Your task to perform on an android device: Search for Italian restaurants on Maps Image 0: 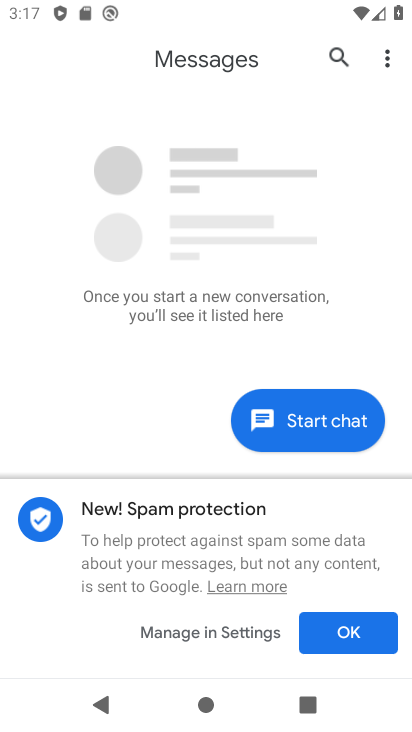
Step 0: press home button
Your task to perform on an android device: Search for Italian restaurants on Maps Image 1: 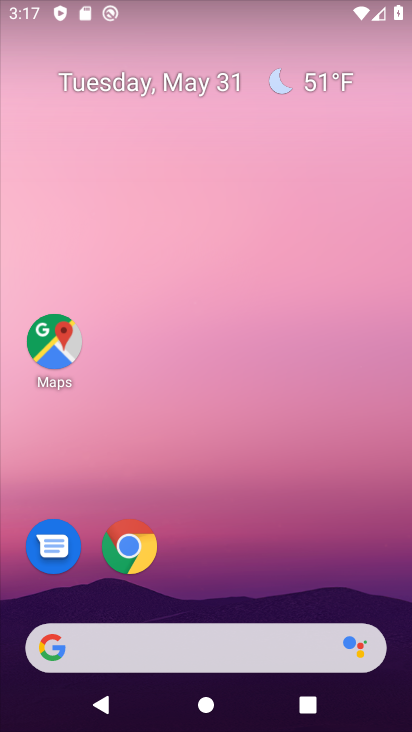
Step 1: drag from (225, 567) to (271, 236)
Your task to perform on an android device: Search for Italian restaurants on Maps Image 2: 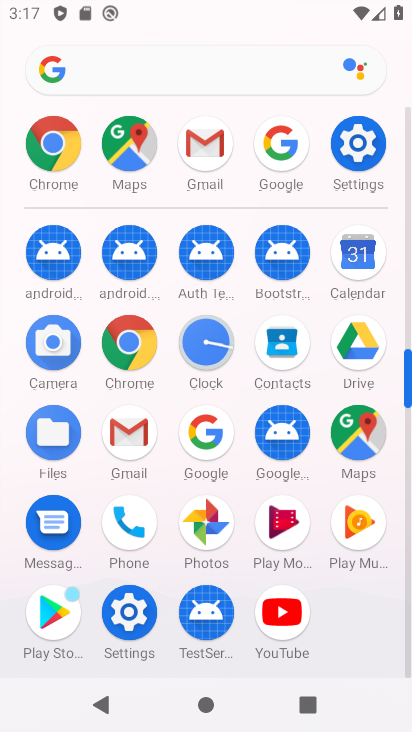
Step 2: click (143, 151)
Your task to perform on an android device: Search for Italian restaurants on Maps Image 3: 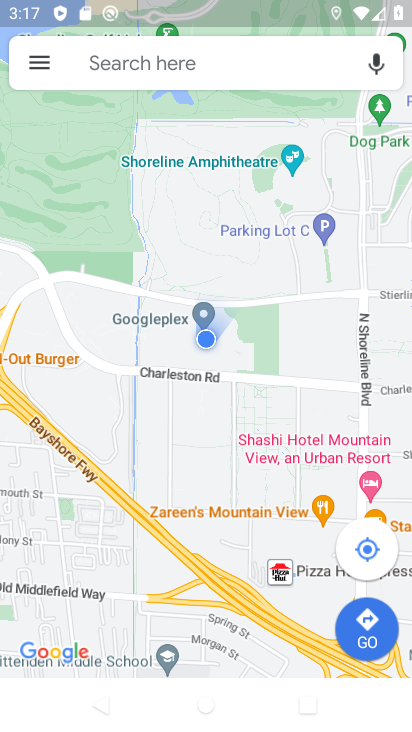
Step 3: click (181, 64)
Your task to perform on an android device: Search for Italian restaurants on Maps Image 4: 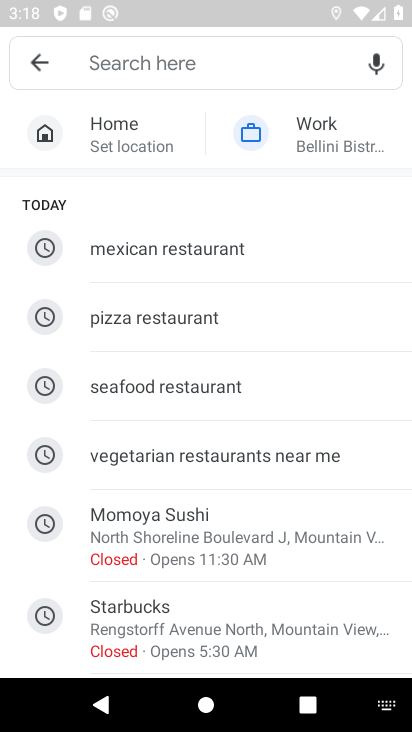
Step 4: drag from (200, 521) to (178, 196)
Your task to perform on an android device: Search for Italian restaurants on Maps Image 5: 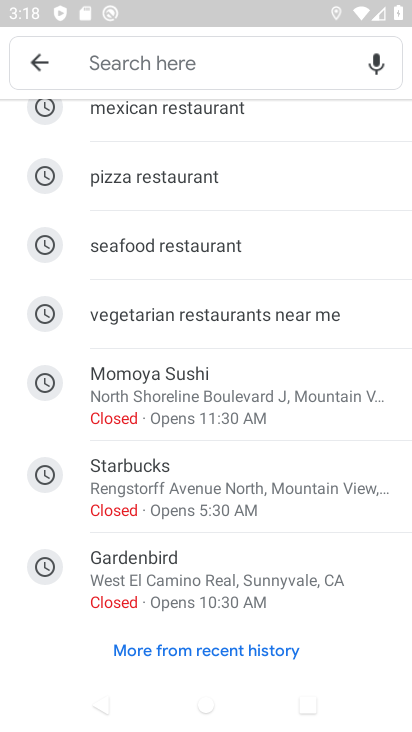
Step 5: drag from (197, 244) to (178, 571)
Your task to perform on an android device: Search for Italian restaurants on Maps Image 6: 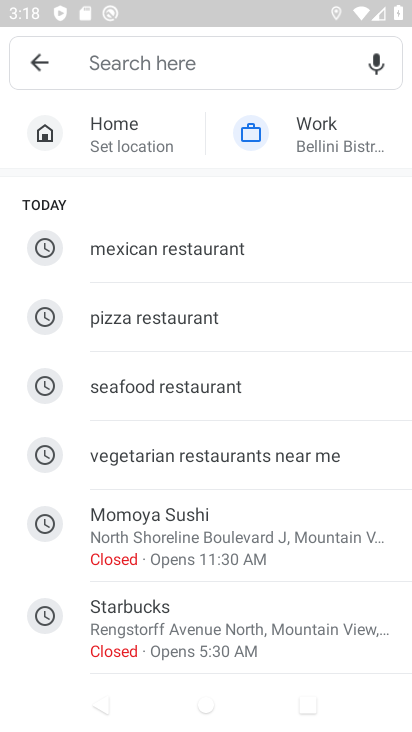
Step 6: click (243, 57)
Your task to perform on an android device: Search for Italian restaurants on Maps Image 7: 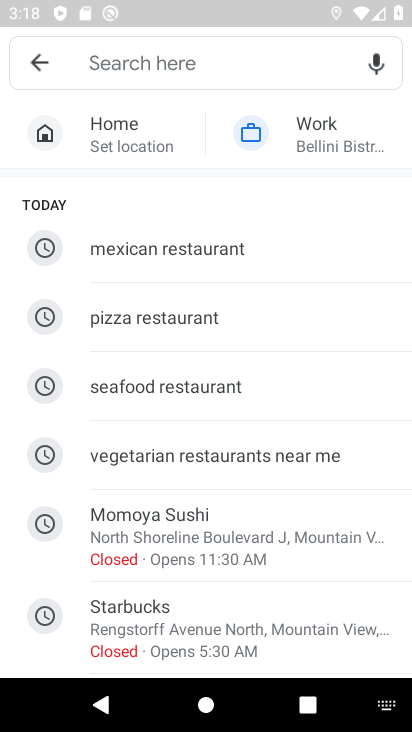
Step 7: type "italian restaurants"
Your task to perform on an android device: Search for Italian restaurants on Maps Image 8: 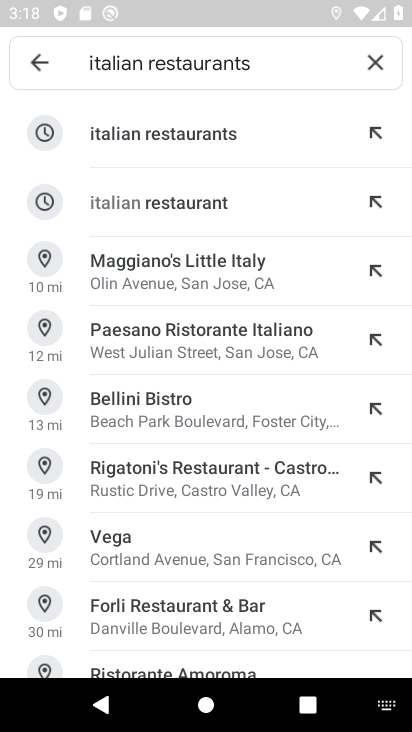
Step 8: click (209, 119)
Your task to perform on an android device: Search for Italian restaurants on Maps Image 9: 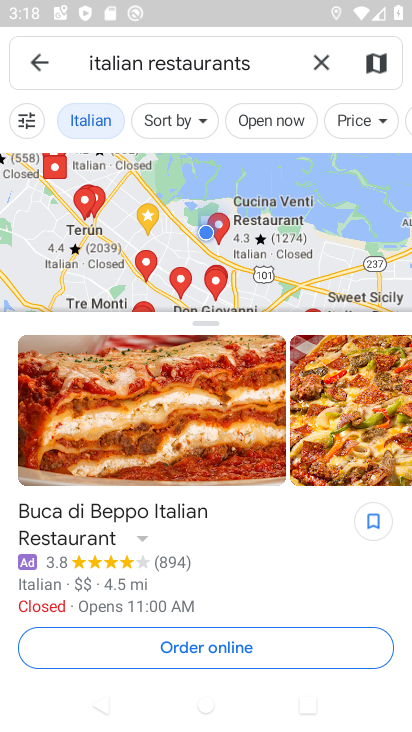
Step 9: task complete